Your task to perform on an android device: turn on bluetooth scan Image 0: 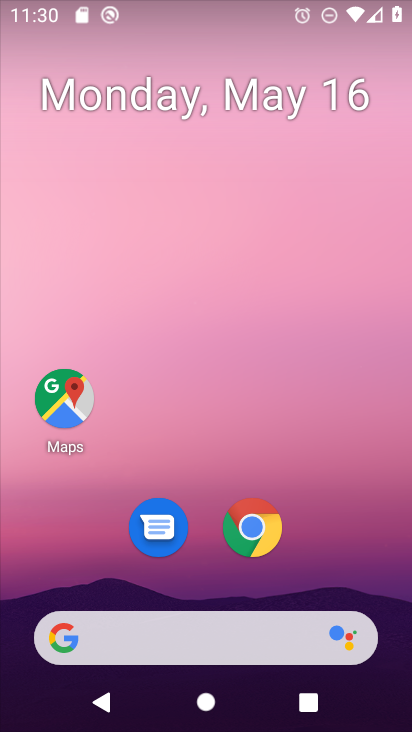
Step 0: drag from (347, 605) to (333, 31)
Your task to perform on an android device: turn on bluetooth scan Image 1: 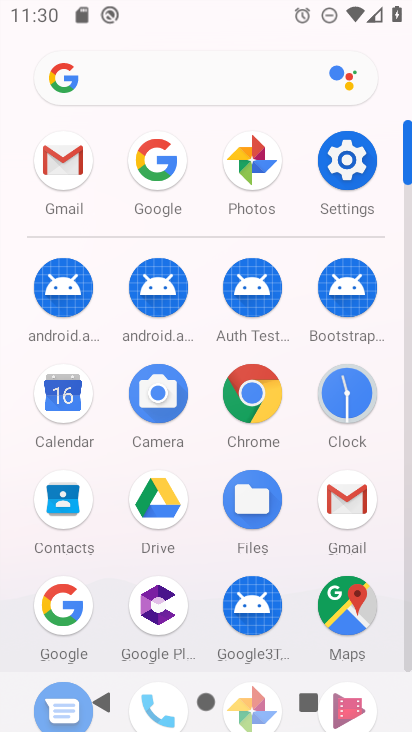
Step 1: click (348, 173)
Your task to perform on an android device: turn on bluetooth scan Image 2: 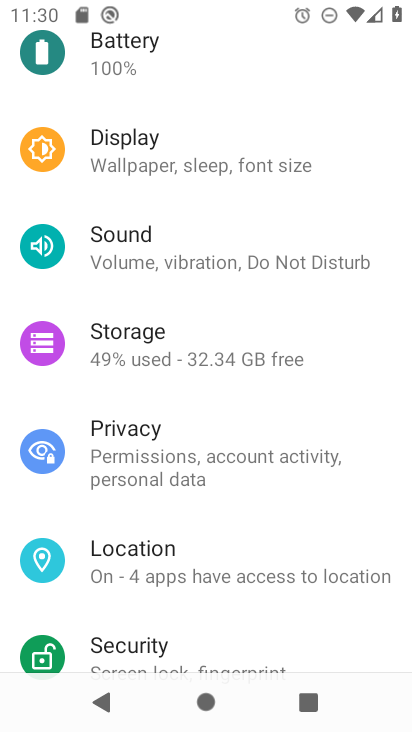
Step 2: click (118, 569)
Your task to perform on an android device: turn on bluetooth scan Image 3: 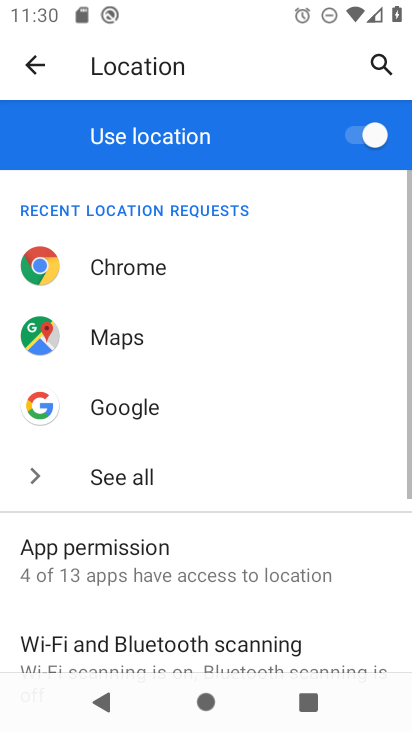
Step 3: drag from (214, 532) to (223, 185)
Your task to perform on an android device: turn on bluetooth scan Image 4: 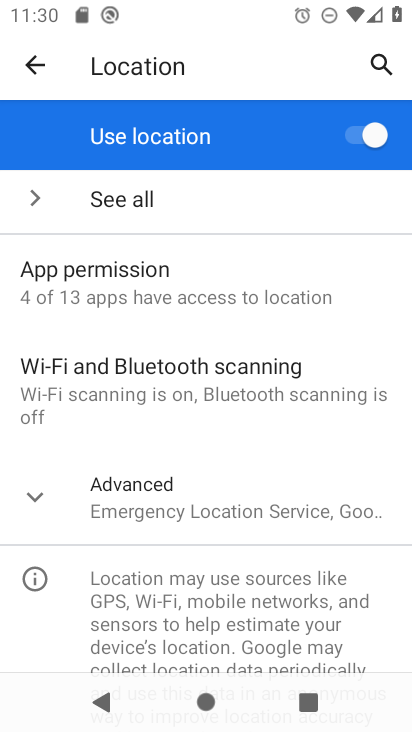
Step 4: click (149, 372)
Your task to perform on an android device: turn on bluetooth scan Image 5: 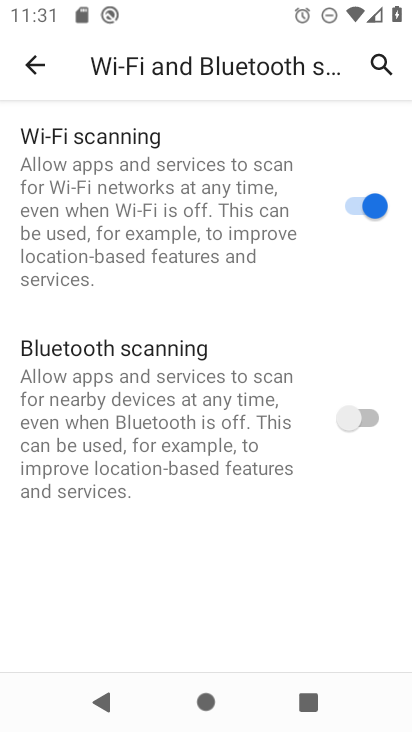
Step 5: click (347, 412)
Your task to perform on an android device: turn on bluetooth scan Image 6: 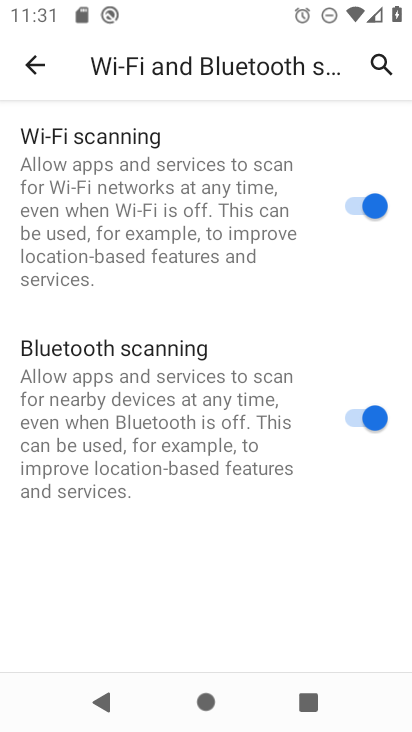
Step 6: task complete